Your task to perform on an android device: delete the emails in spam in the gmail app Image 0: 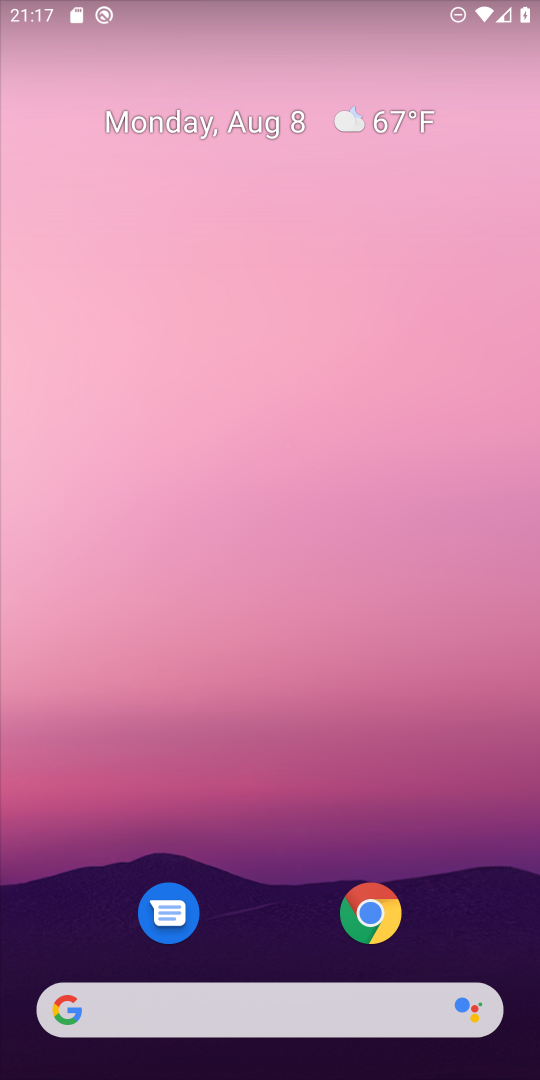
Step 0: drag from (254, 991) to (270, 167)
Your task to perform on an android device: delete the emails in spam in the gmail app Image 1: 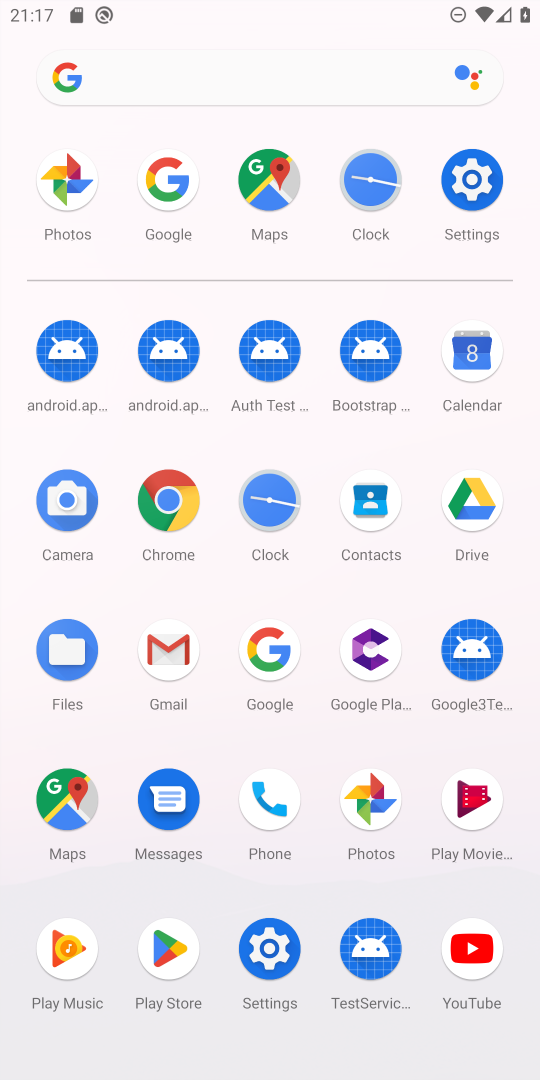
Step 1: click (167, 646)
Your task to perform on an android device: delete the emails in spam in the gmail app Image 2: 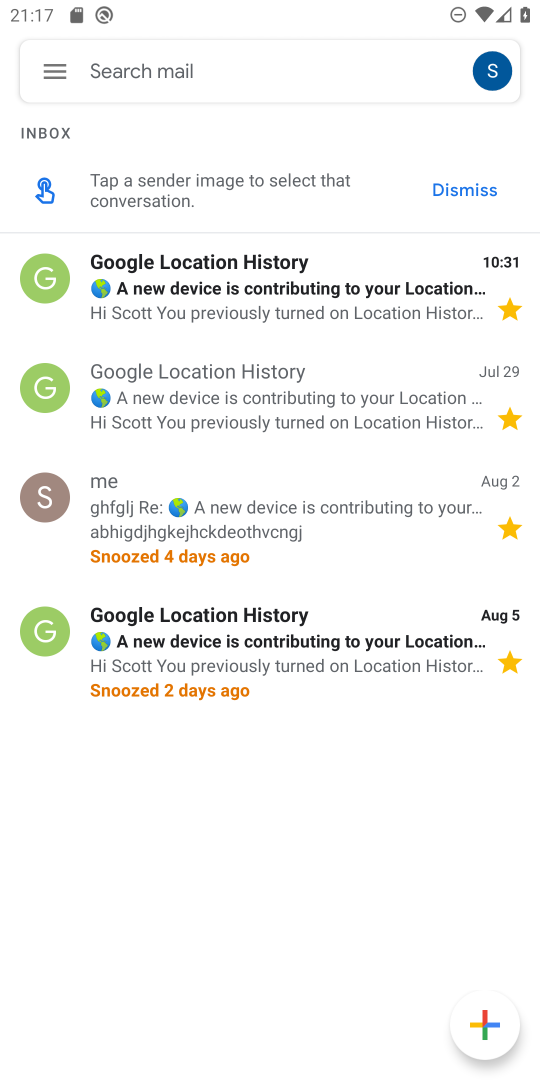
Step 2: click (51, 73)
Your task to perform on an android device: delete the emails in spam in the gmail app Image 3: 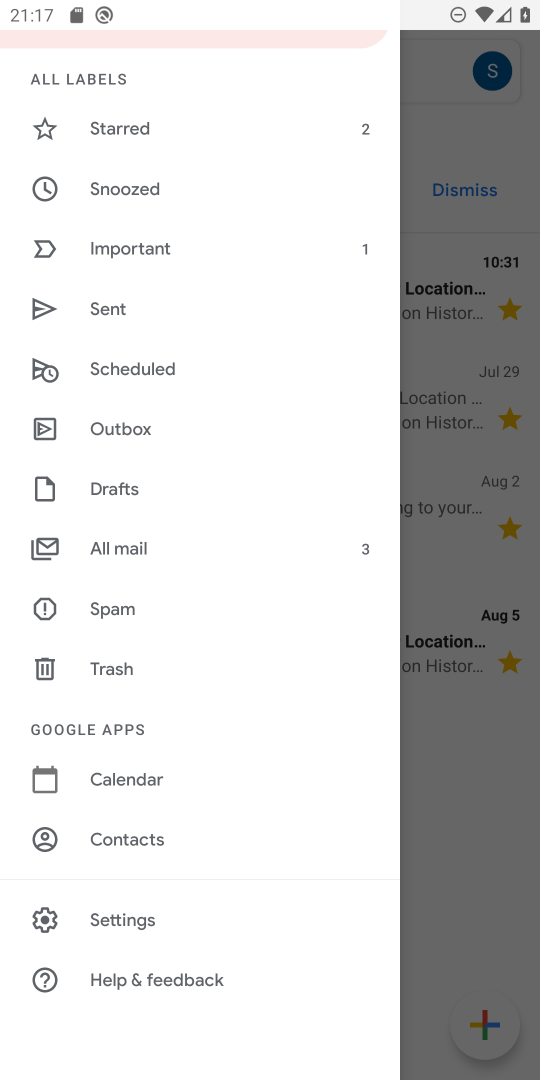
Step 3: click (121, 615)
Your task to perform on an android device: delete the emails in spam in the gmail app Image 4: 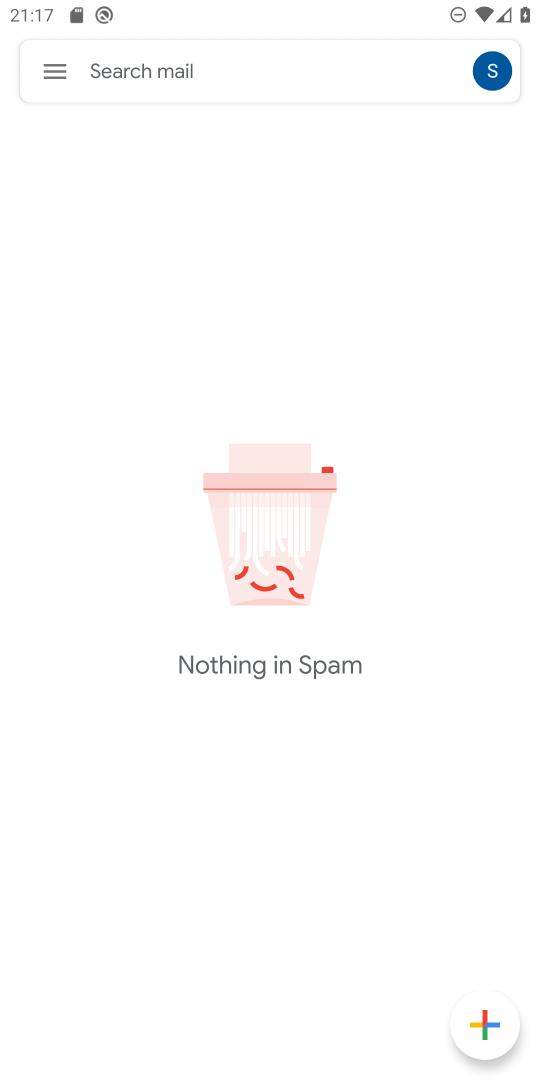
Step 4: task complete